Your task to perform on an android device: empty trash in the gmail app Image 0: 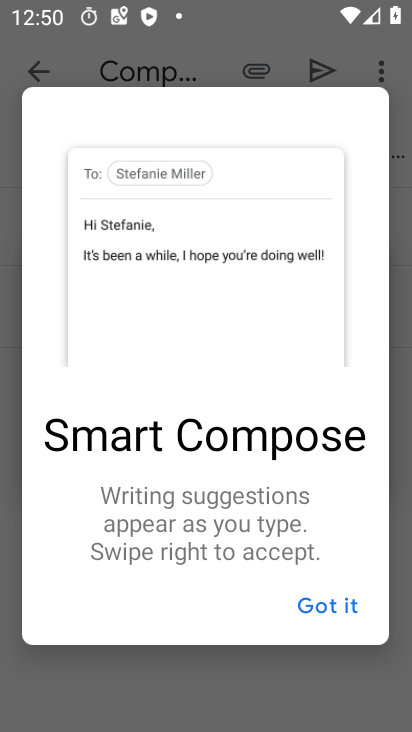
Step 0: press home button
Your task to perform on an android device: empty trash in the gmail app Image 1: 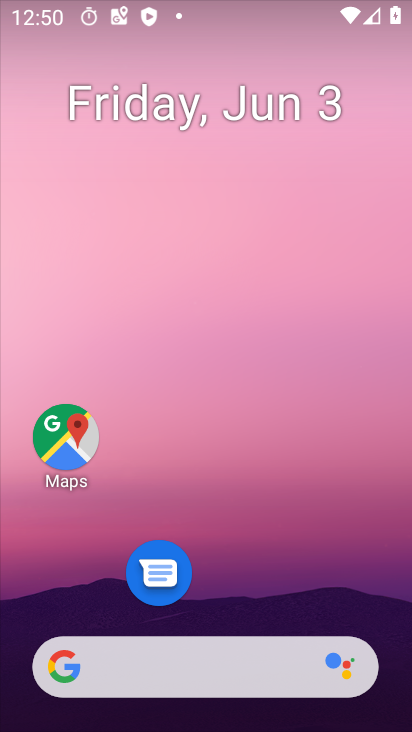
Step 1: drag from (235, 727) to (226, 167)
Your task to perform on an android device: empty trash in the gmail app Image 2: 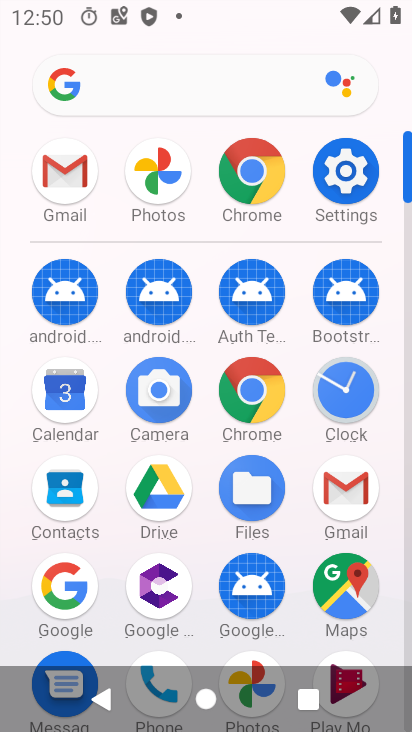
Step 2: click (64, 188)
Your task to perform on an android device: empty trash in the gmail app Image 3: 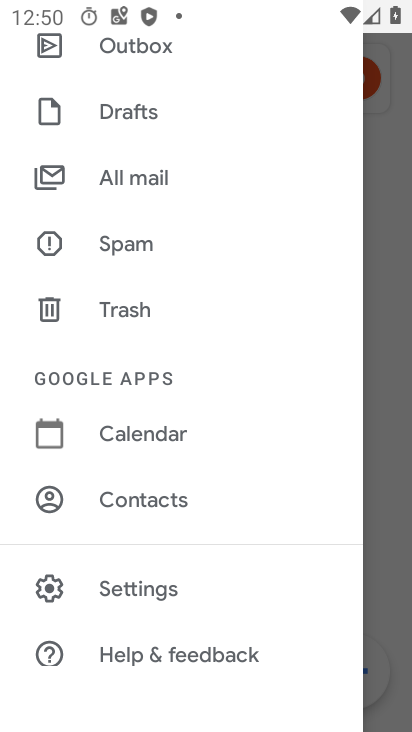
Step 3: click (132, 306)
Your task to perform on an android device: empty trash in the gmail app Image 4: 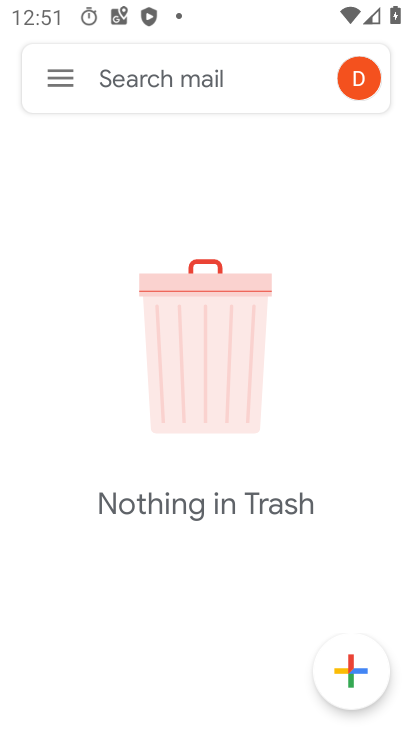
Step 4: task complete